Your task to perform on an android device: change notification settings in the gmail app Image 0: 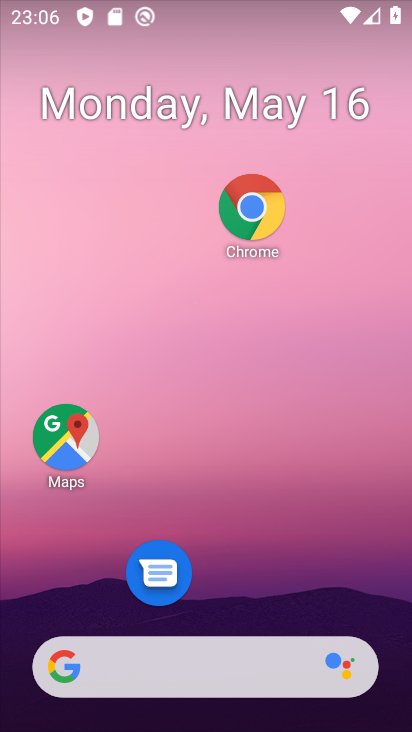
Step 0: drag from (248, 614) to (286, 186)
Your task to perform on an android device: change notification settings in the gmail app Image 1: 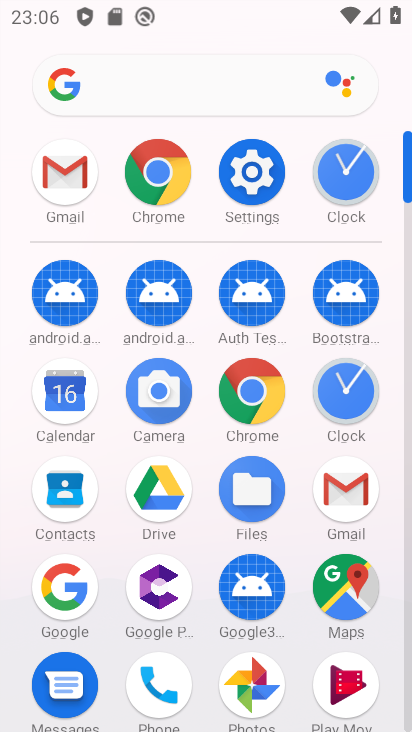
Step 1: click (341, 480)
Your task to perform on an android device: change notification settings in the gmail app Image 2: 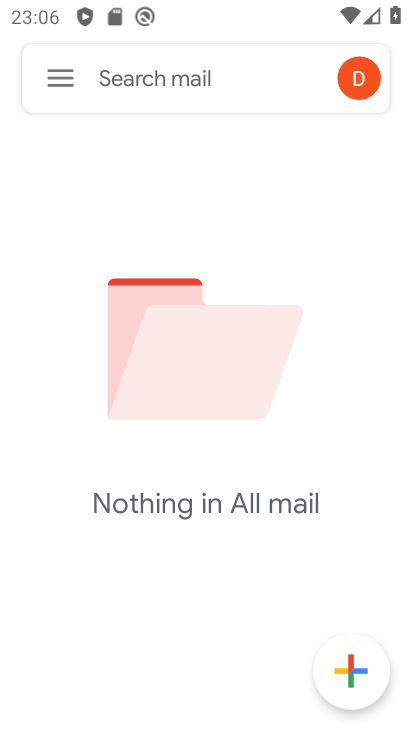
Step 2: click (41, 79)
Your task to perform on an android device: change notification settings in the gmail app Image 3: 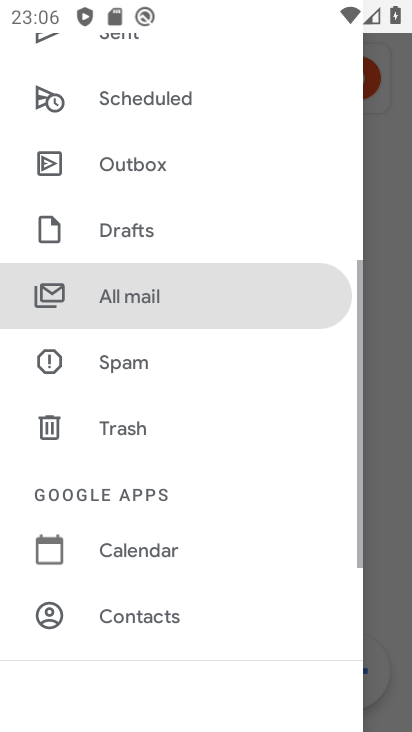
Step 3: drag from (134, 664) to (257, 200)
Your task to perform on an android device: change notification settings in the gmail app Image 4: 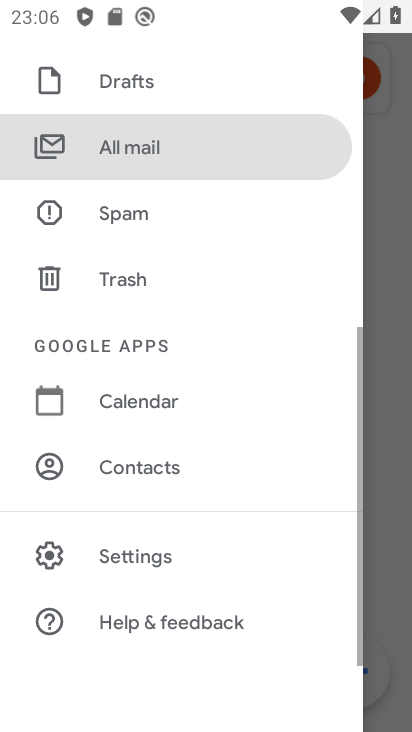
Step 4: click (180, 557)
Your task to perform on an android device: change notification settings in the gmail app Image 5: 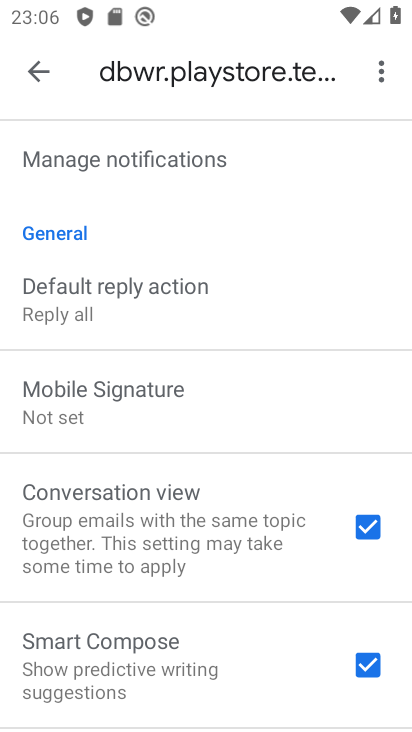
Step 5: drag from (214, 631) to (264, 260)
Your task to perform on an android device: change notification settings in the gmail app Image 6: 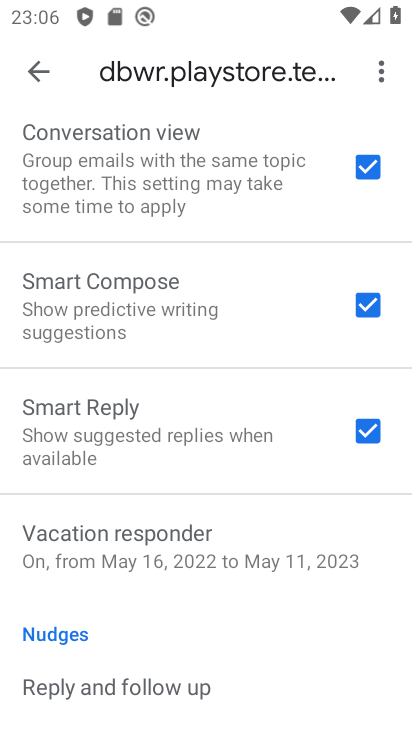
Step 6: drag from (189, 693) to (184, 251)
Your task to perform on an android device: change notification settings in the gmail app Image 7: 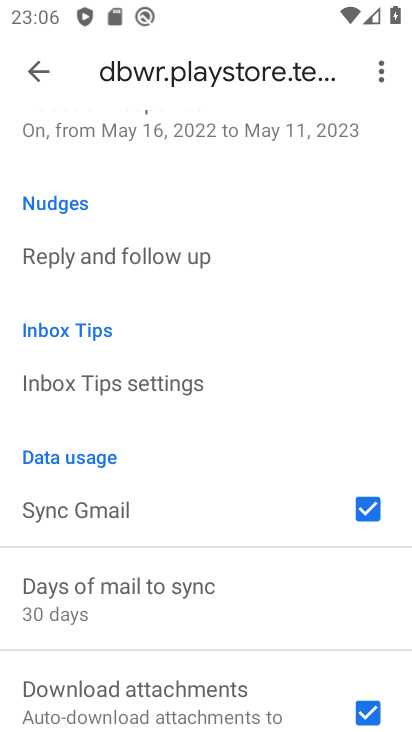
Step 7: drag from (238, 528) to (266, 280)
Your task to perform on an android device: change notification settings in the gmail app Image 8: 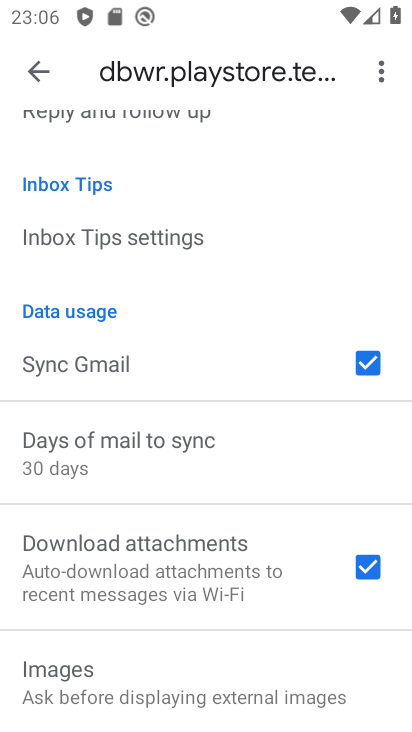
Step 8: drag from (267, 281) to (260, 659)
Your task to perform on an android device: change notification settings in the gmail app Image 9: 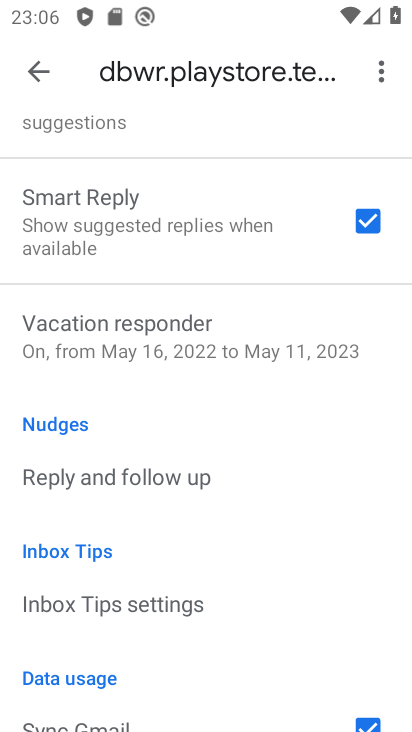
Step 9: drag from (212, 318) to (230, 623)
Your task to perform on an android device: change notification settings in the gmail app Image 10: 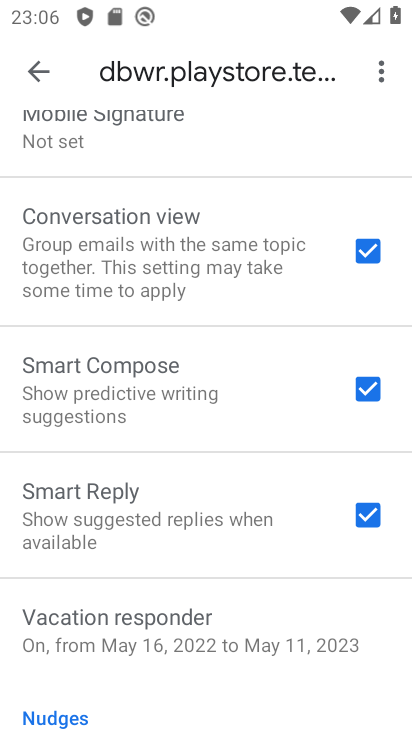
Step 10: drag from (215, 347) to (288, 726)
Your task to perform on an android device: change notification settings in the gmail app Image 11: 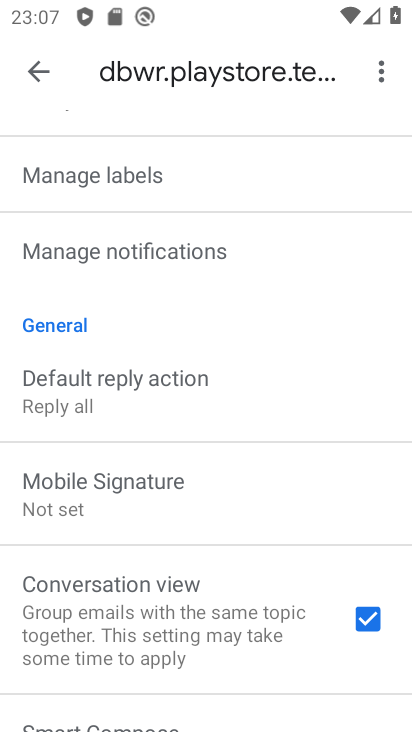
Step 11: click (184, 262)
Your task to perform on an android device: change notification settings in the gmail app Image 12: 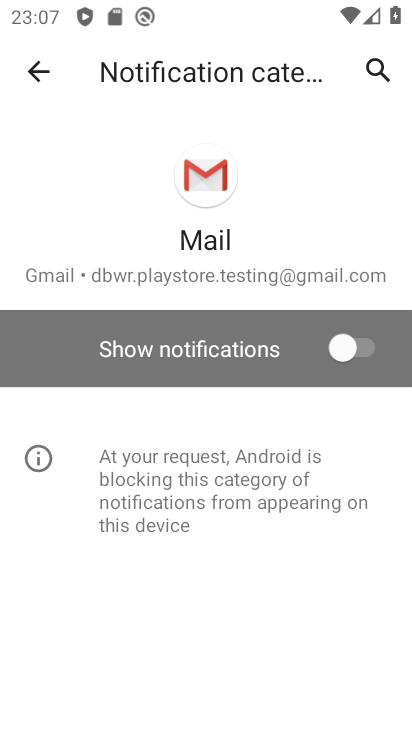
Step 12: click (353, 346)
Your task to perform on an android device: change notification settings in the gmail app Image 13: 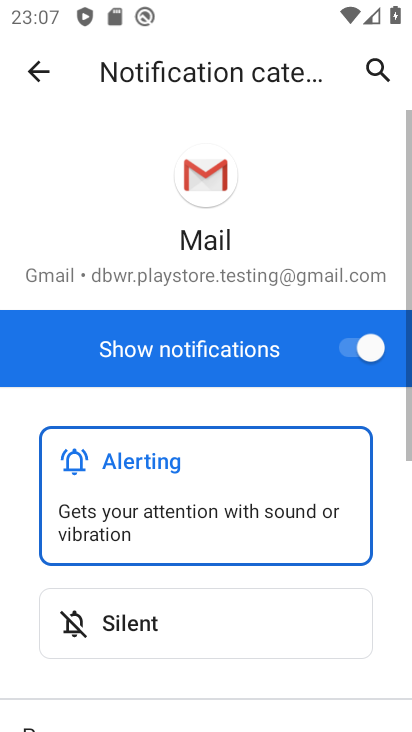
Step 13: task complete